Your task to perform on an android device: What's the weather going to be tomorrow? Image 0: 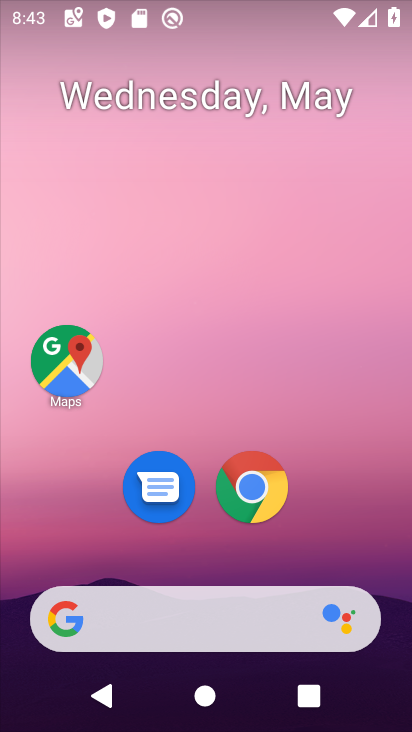
Step 0: drag from (336, 535) to (191, 22)
Your task to perform on an android device: What's the weather going to be tomorrow? Image 1: 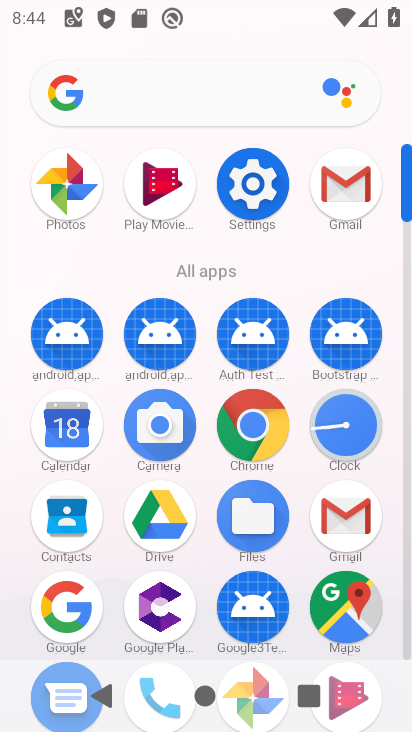
Step 1: click (140, 86)
Your task to perform on an android device: What's the weather going to be tomorrow? Image 2: 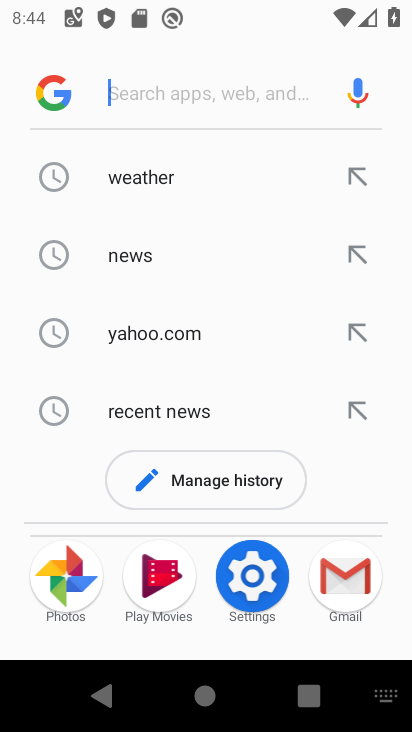
Step 2: click (137, 174)
Your task to perform on an android device: What's the weather going to be tomorrow? Image 3: 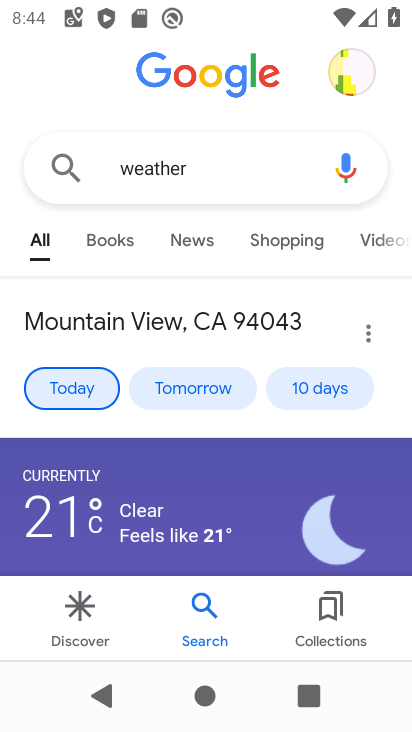
Step 3: click (196, 393)
Your task to perform on an android device: What's the weather going to be tomorrow? Image 4: 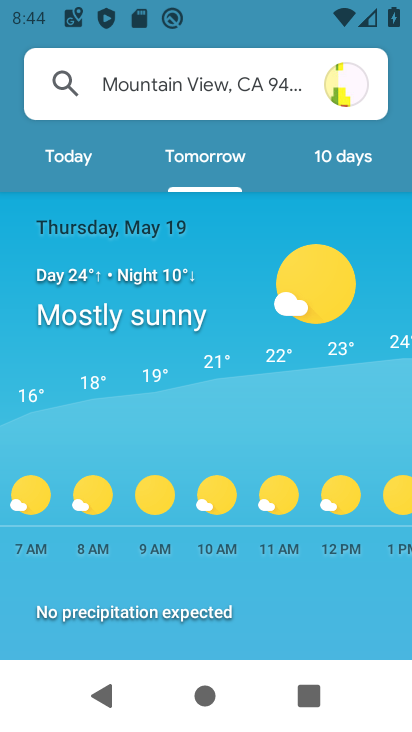
Step 4: task complete